Your task to perform on an android device: Go to CNN.com Image 0: 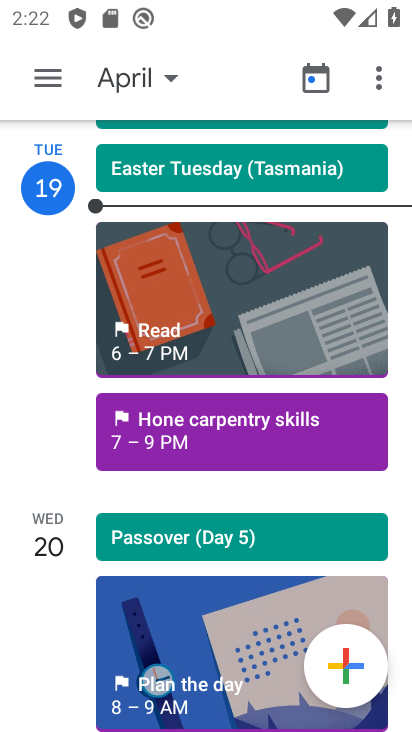
Step 0: press home button
Your task to perform on an android device: Go to CNN.com Image 1: 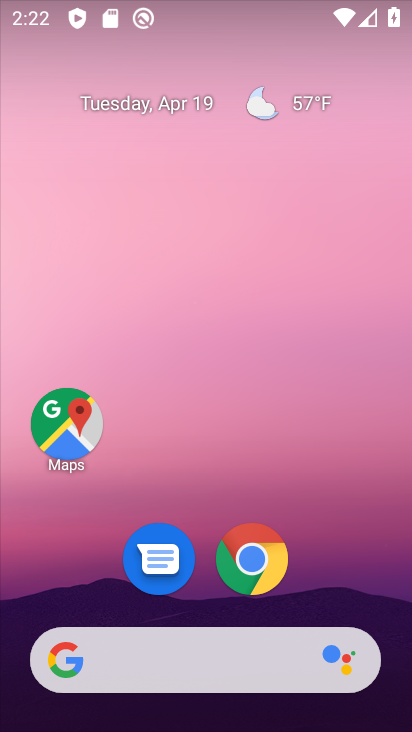
Step 1: drag from (389, 602) to (386, 132)
Your task to perform on an android device: Go to CNN.com Image 2: 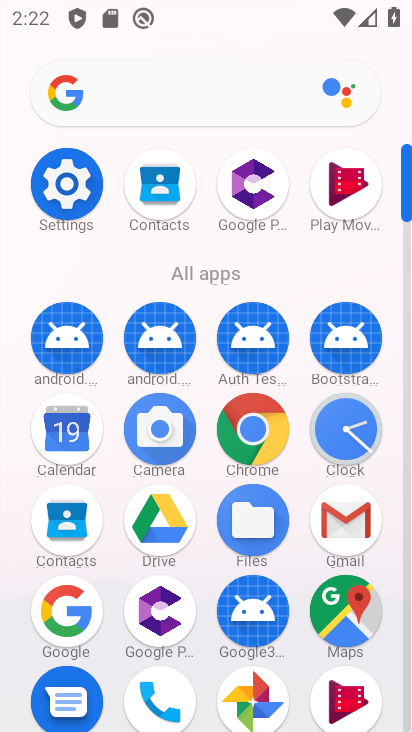
Step 2: click (277, 432)
Your task to perform on an android device: Go to CNN.com Image 3: 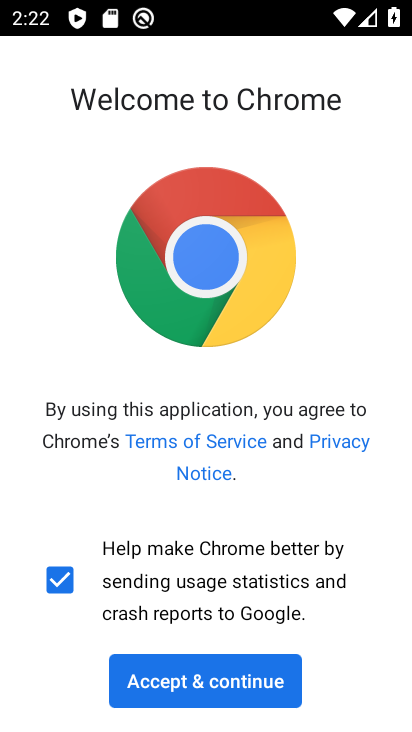
Step 3: click (264, 701)
Your task to perform on an android device: Go to CNN.com Image 4: 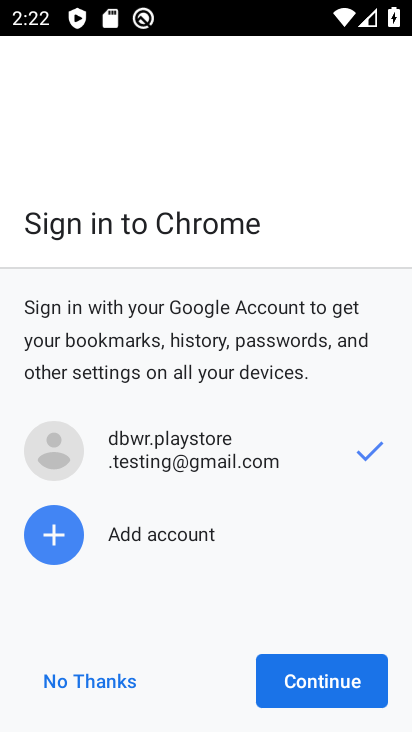
Step 4: click (265, 700)
Your task to perform on an android device: Go to CNN.com Image 5: 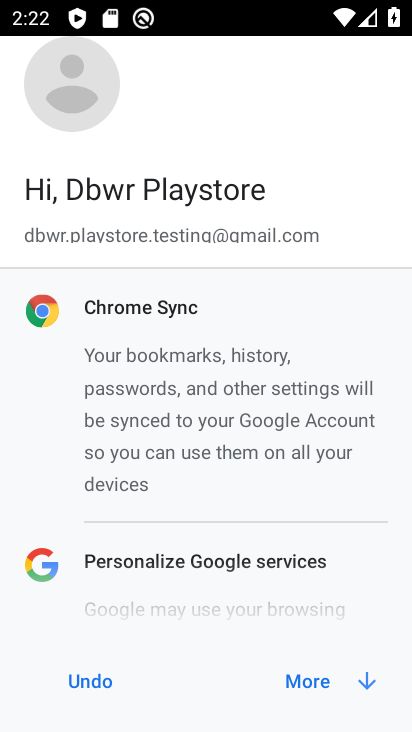
Step 5: click (283, 686)
Your task to perform on an android device: Go to CNN.com Image 6: 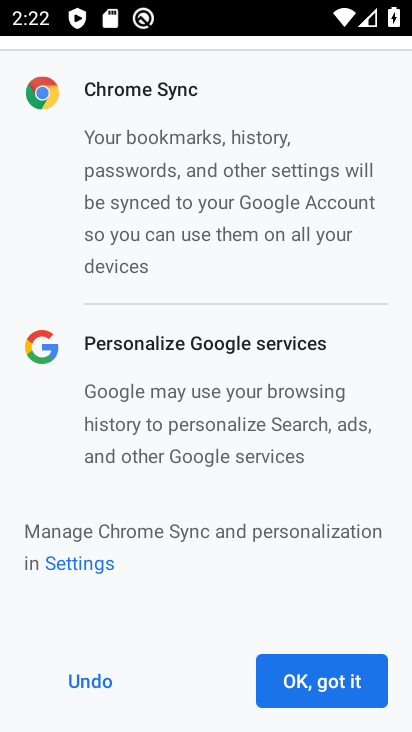
Step 6: click (283, 686)
Your task to perform on an android device: Go to CNN.com Image 7: 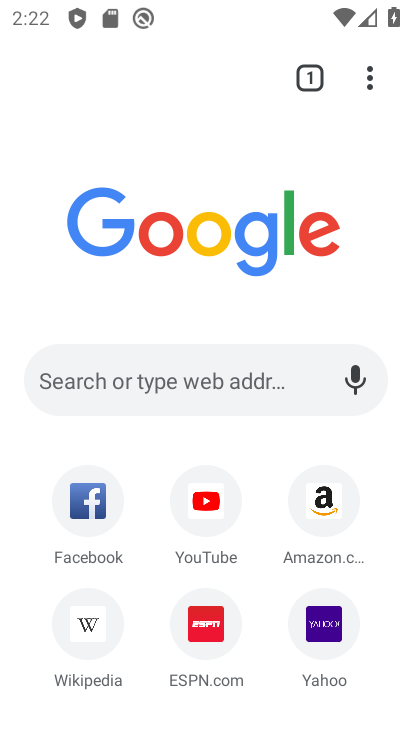
Step 7: drag from (392, 599) to (400, 297)
Your task to perform on an android device: Go to CNN.com Image 8: 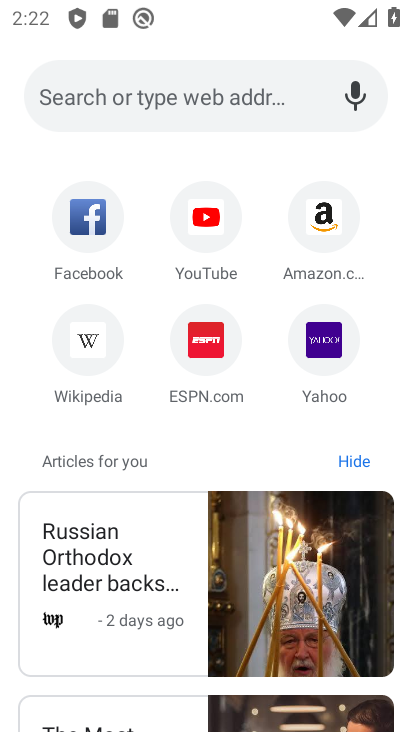
Step 8: click (152, 95)
Your task to perform on an android device: Go to CNN.com Image 9: 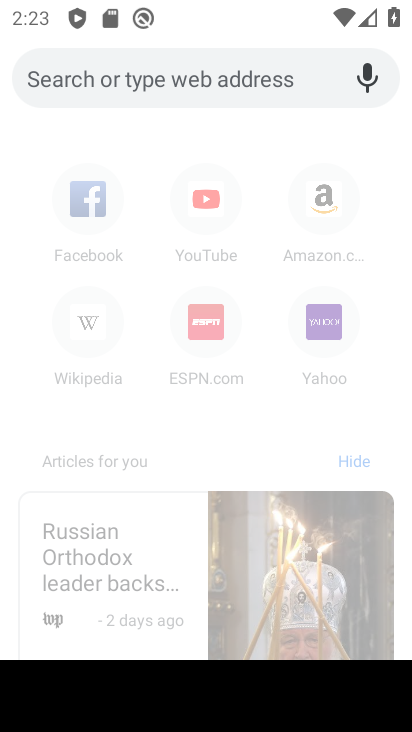
Step 9: type "cnn.com"
Your task to perform on an android device: Go to CNN.com Image 10: 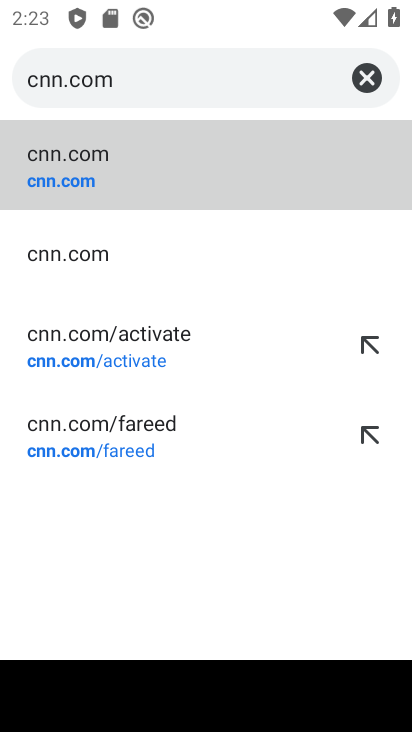
Step 10: click (77, 170)
Your task to perform on an android device: Go to CNN.com Image 11: 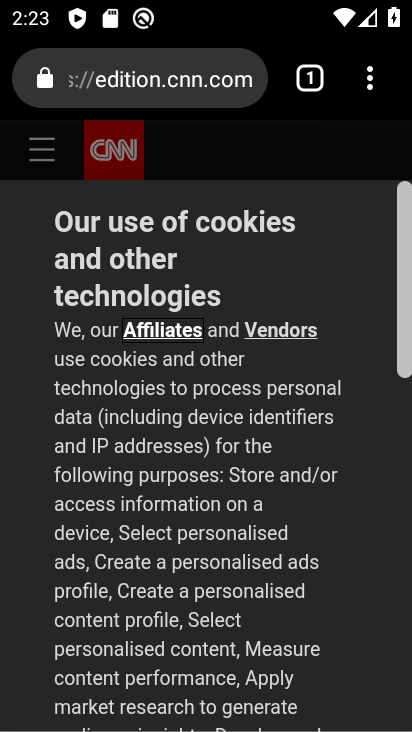
Step 11: task complete